Your task to perform on an android device: Open sound settings Image 0: 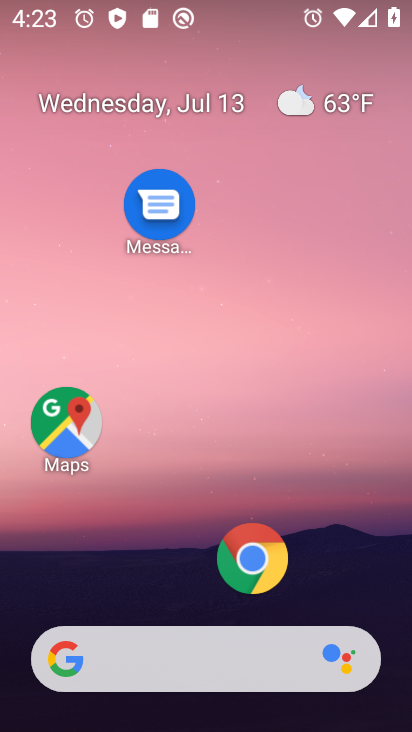
Step 0: drag from (230, 627) to (195, 201)
Your task to perform on an android device: Open sound settings Image 1: 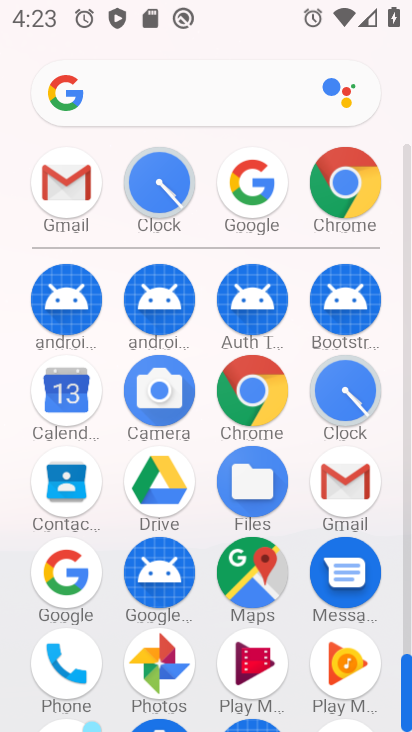
Step 1: drag from (209, 648) to (213, 310)
Your task to perform on an android device: Open sound settings Image 2: 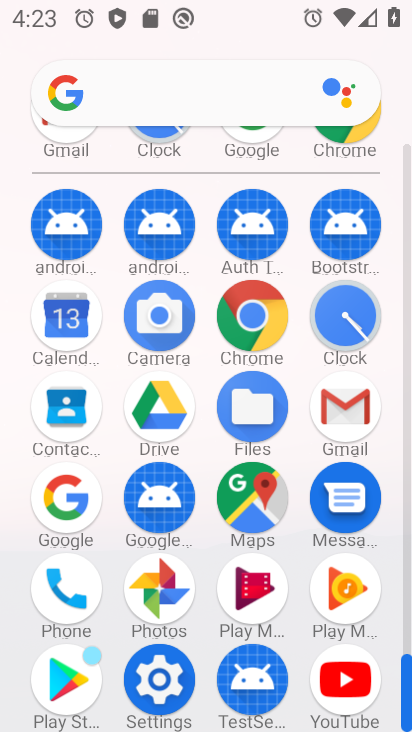
Step 2: click (166, 683)
Your task to perform on an android device: Open sound settings Image 3: 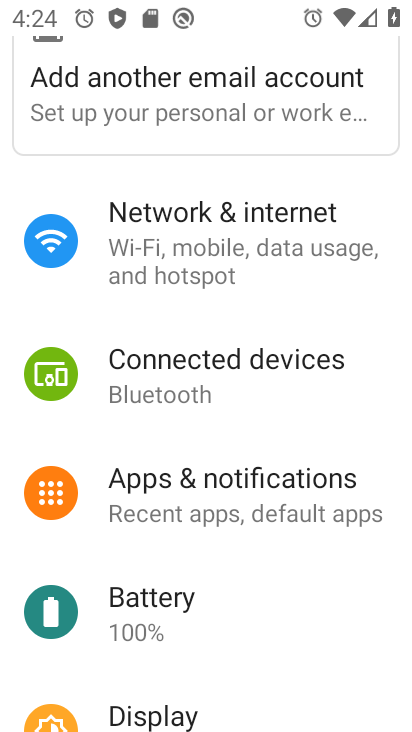
Step 3: drag from (157, 706) to (183, 264)
Your task to perform on an android device: Open sound settings Image 4: 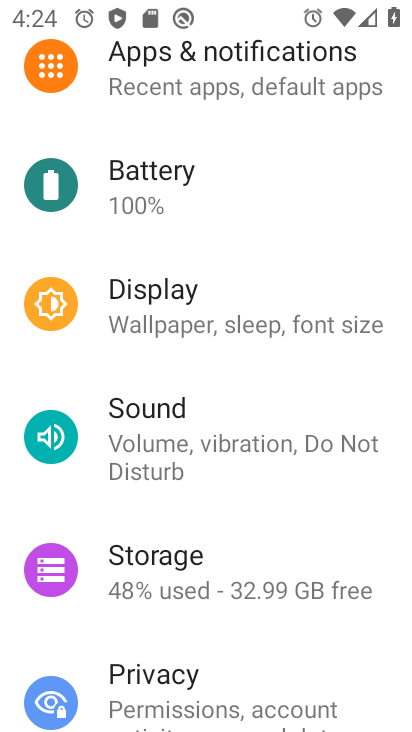
Step 4: click (155, 448)
Your task to perform on an android device: Open sound settings Image 5: 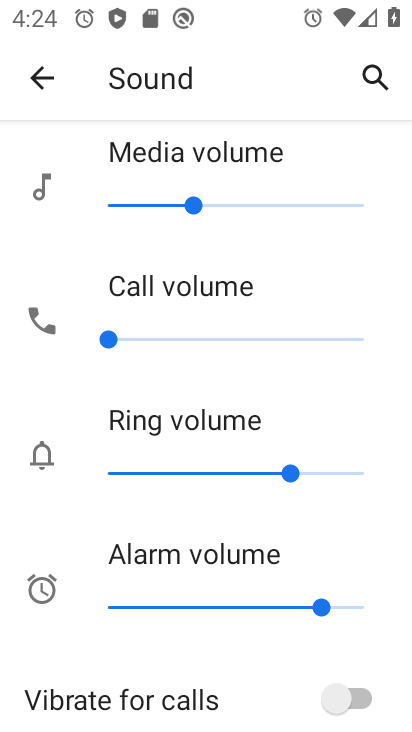
Step 5: task complete